Your task to perform on an android device: open app "Messages" (install if not already installed) Image 0: 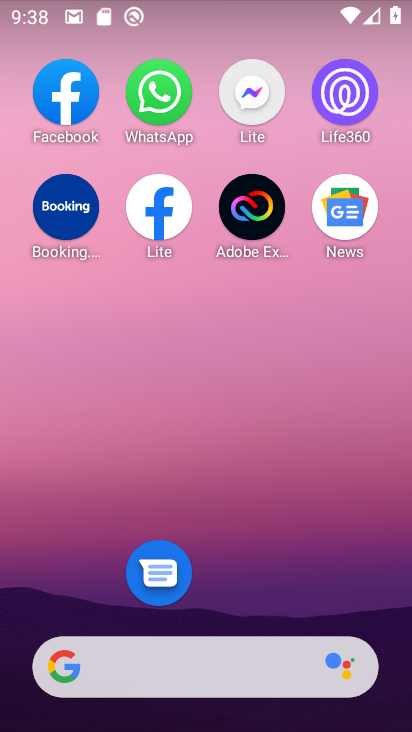
Step 0: drag from (265, 589) to (280, 12)
Your task to perform on an android device: open app "Messages" (install if not already installed) Image 1: 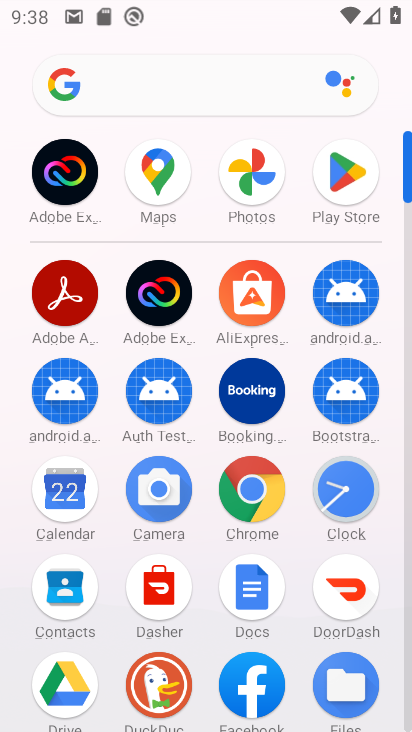
Step 1: click (352, 149)
Your task to perform on an android device: open app "Messages" (install if not already installed) Image 2: 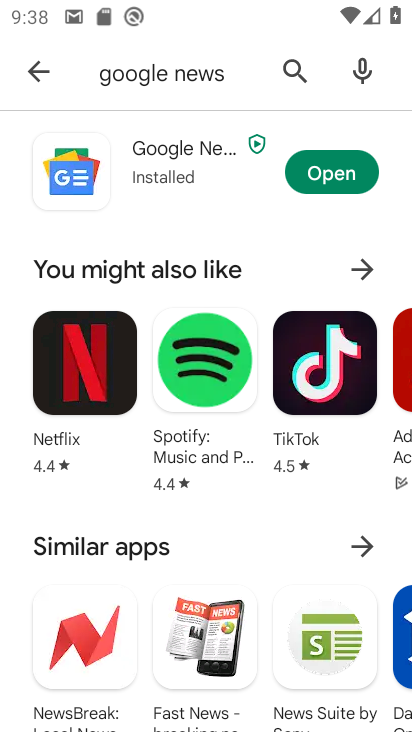
Step 2: click (220, 82)
Your task to perform on an android device: open app "Messages" (install if not already installed) Image 3: 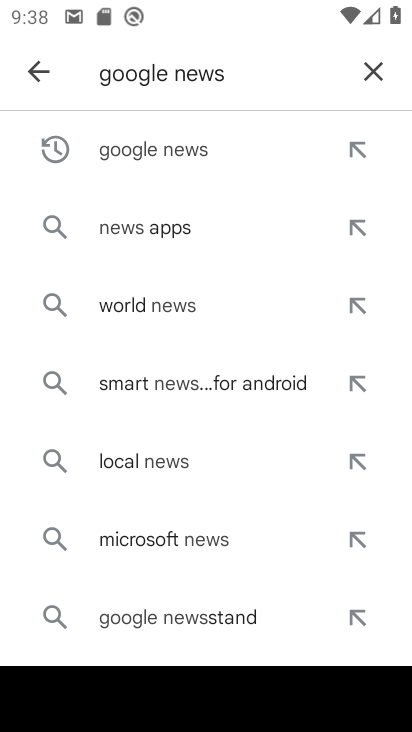
Step 3: click (380, 63)
Your task to perform on an android device: open app "Messages" (install if not already installed) Image 4: 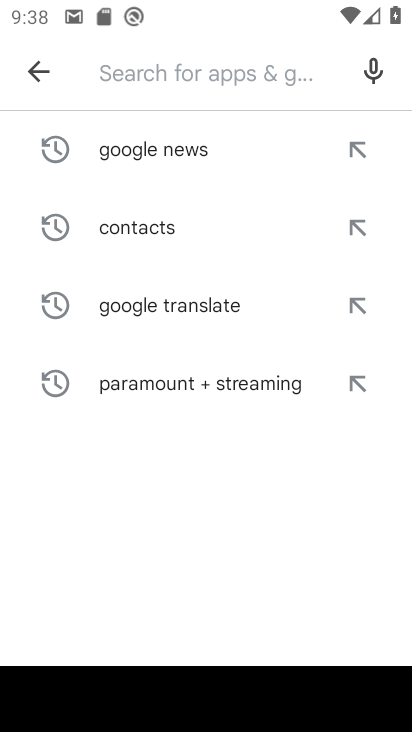
Step 4: type "messages"
Your task to perform on an android device: open app "Messages" (install if not already installed) Image 5: 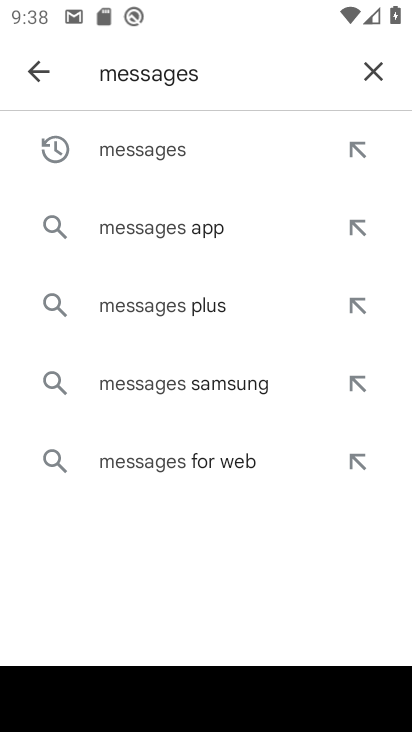
Step 5: click (210, 174)
Your task to perform on an android device: open app "Messages" (install if not already installed) Image 6: 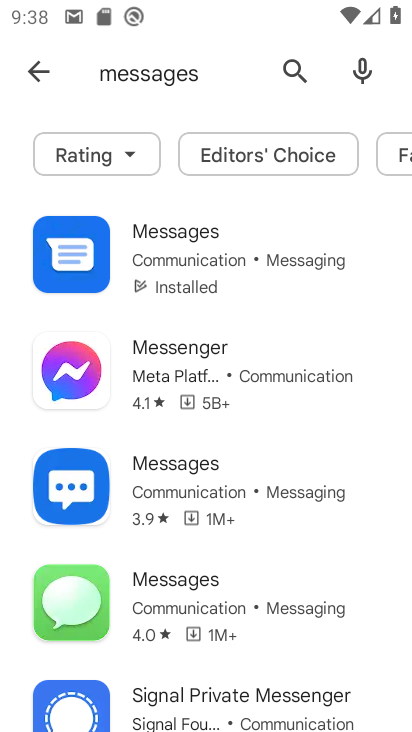
Step 6: click (185, 258)
Your task to perform on an android device: open app "Messages" (install if not already installed) Image 7: 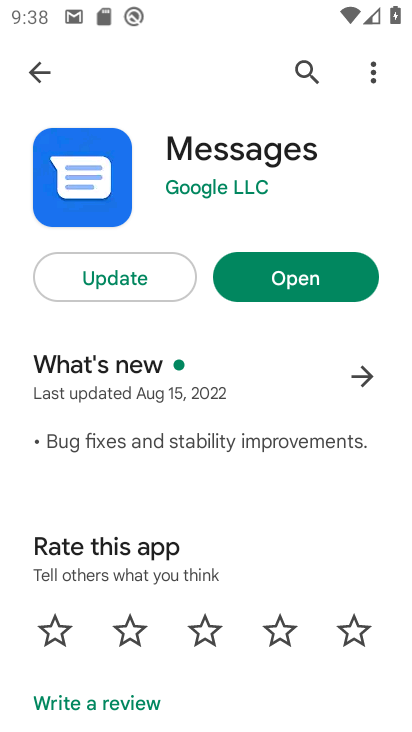
Step 7: click (288, 270)
Your task to perform on an android device: open app "Messages" (install if not already installed) Image 8: 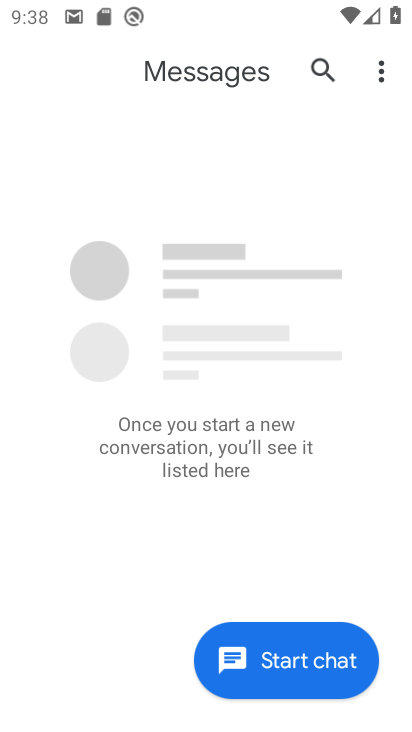
Step 8: task complete